Your task to perform on an android device: Search for the best vacuum on Walmart Image 0: 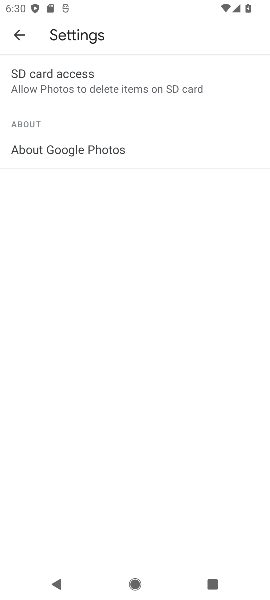
Step 0: press home button
Your task to perform on an android device: Search for the best vacuum on Walmart Image 1: 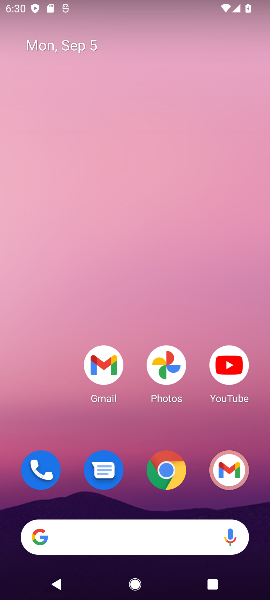
Step 1: click (113, 530)
Your task to perform on an android device: Search for the best vacuum on Walmart Image 2: 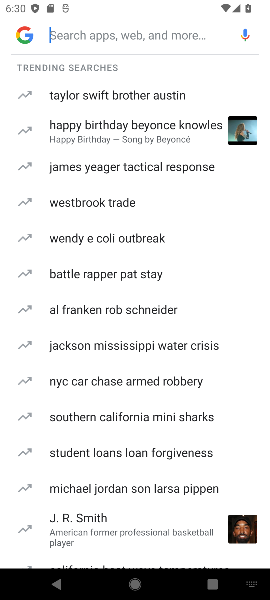
Step 2: type "walmart"
Your task to perform on an android device: Search for the best vacuum on Walmart Image 3: 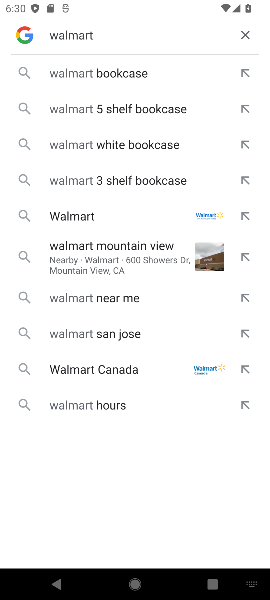
Step 3: click (71, 212)
Your task to perform on an android device: Search for the best vacuum on Walmart Image 4: 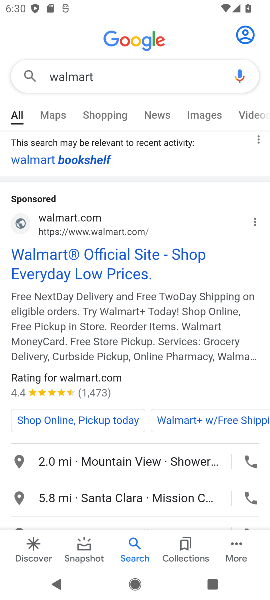
Step 4: click (42, 254)
Your task to perform on an android device: Search for the best vacuum on Walmart Image 5: 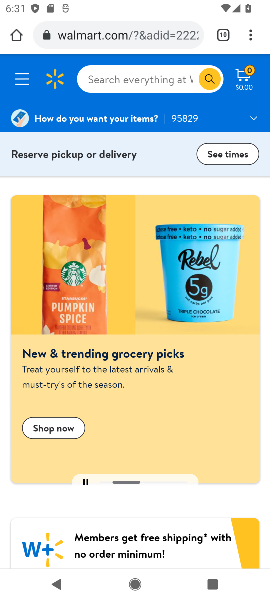
Step 5: click (121, 78)
Your task to perform on an android device: Search for the best vacuum on Walmart Image 6: 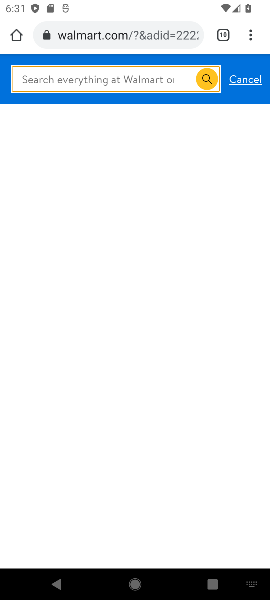
Step 6: type "best vacuum"
Your task to perform on an android device: Search for the best vacuum on Walmart Image 7: 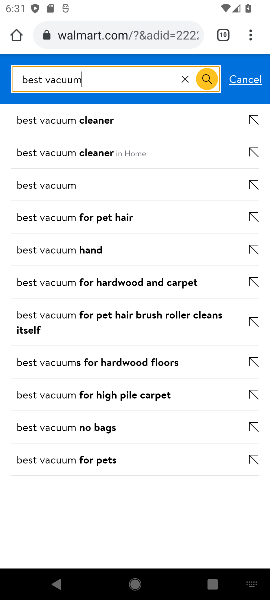
Step 7: click (207, 75)
Your task to perform on an android device: Search for the best vacuum on Walmart Image 8: 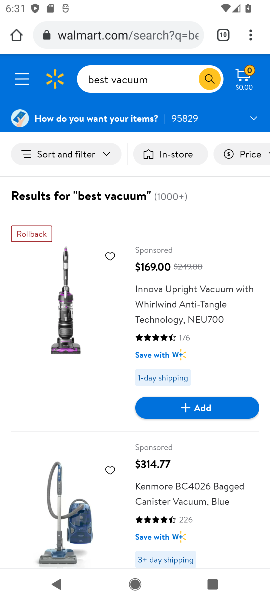
Step 8: task complete